Your task to perform on an android device: manage bookmarks in the chrome app Image 0: 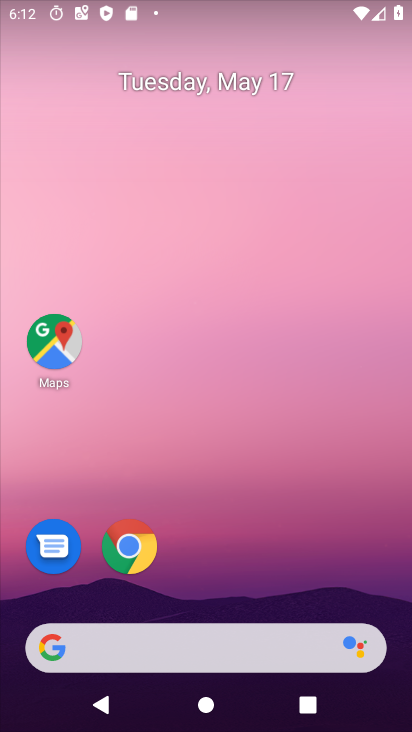
Step 0: click (130, 555)
Your task to perform on an android device: manage bookmarks in the chrome app Image 1: 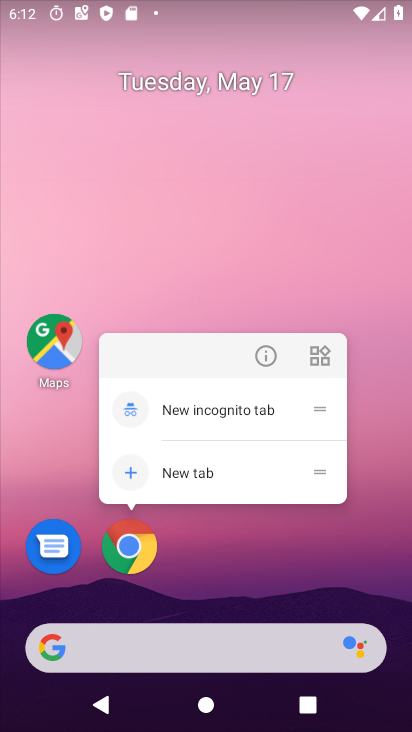
Step 1: click (130, 555)
Your task to perform on an android device: manage bookmarks in the chrome app Image 2: 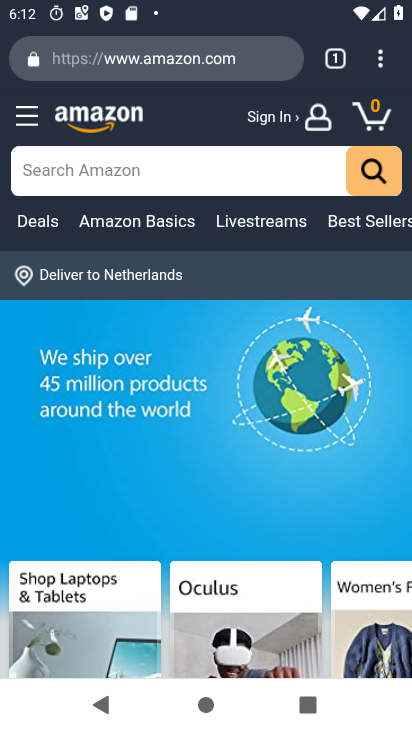
Step 2: click (379, 71)
Your task to perform on an android device: manage bookmarks in the chrome app Image 3: 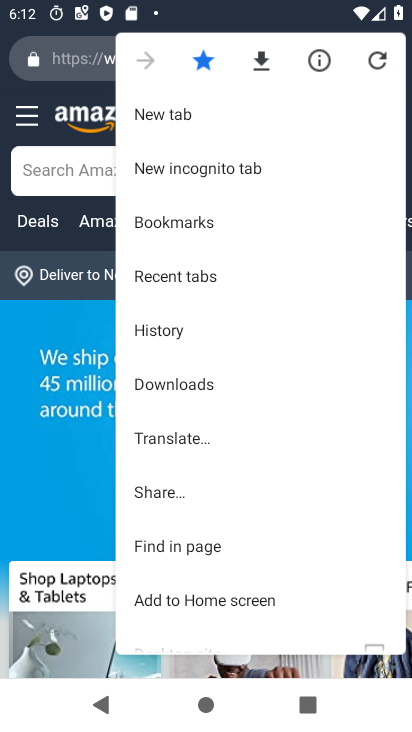
Step 3: click (188, 233)
Your task to perform on an android device: manage bookmarks in the chrome app Image 4: 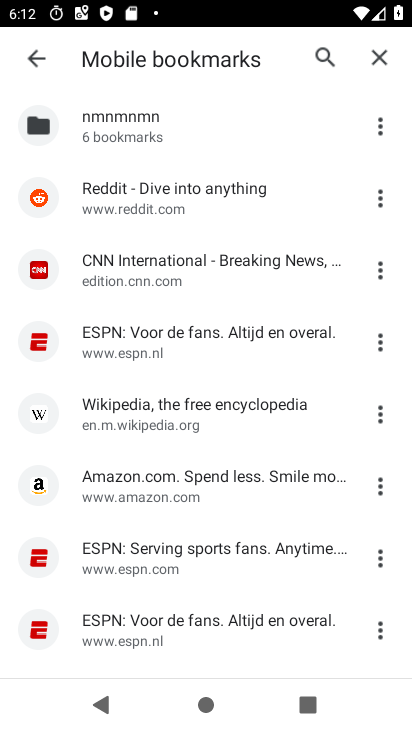
Step 4: task complete